Your task to perform on an android device: turn on the 12-hour format for clock Image 0: 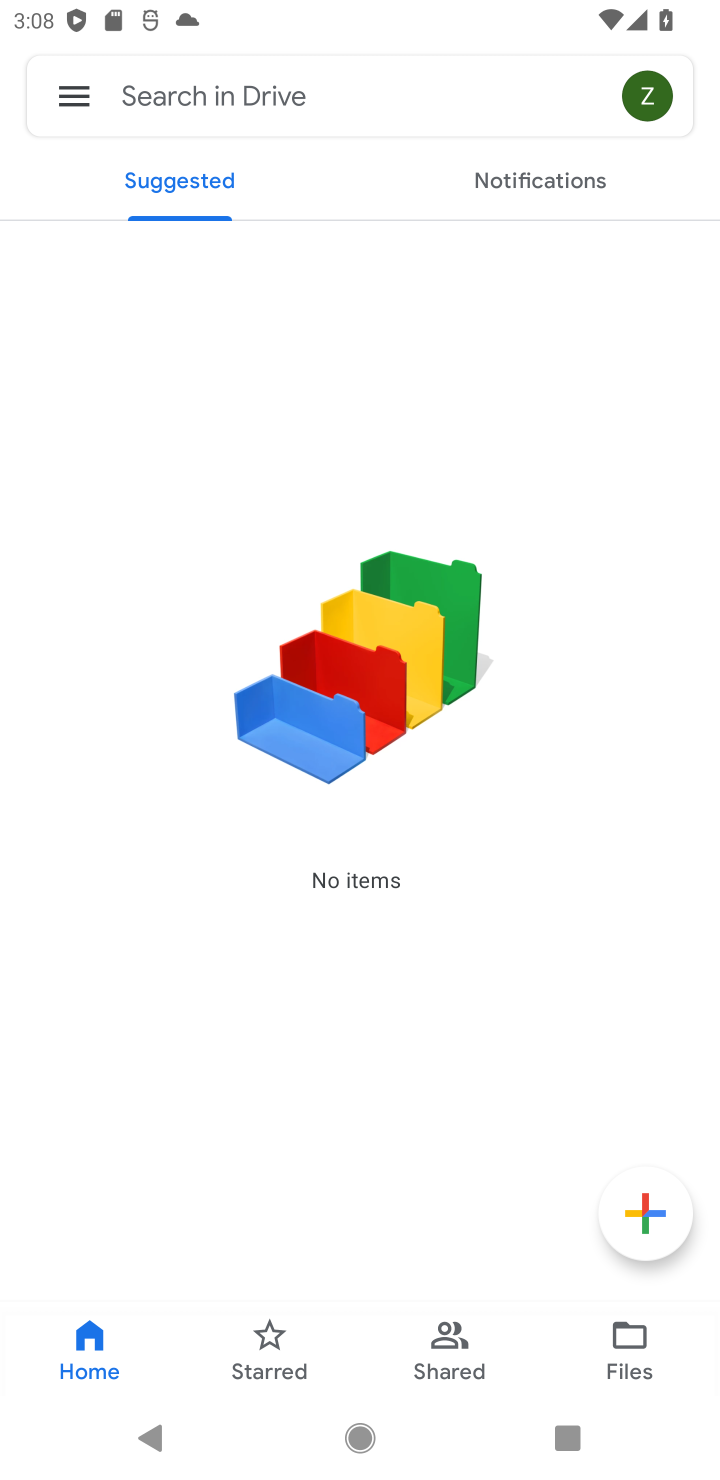
Step 0: press home button
Your task to perform on an android device: turn on the 12-hour format for clock Image 1: 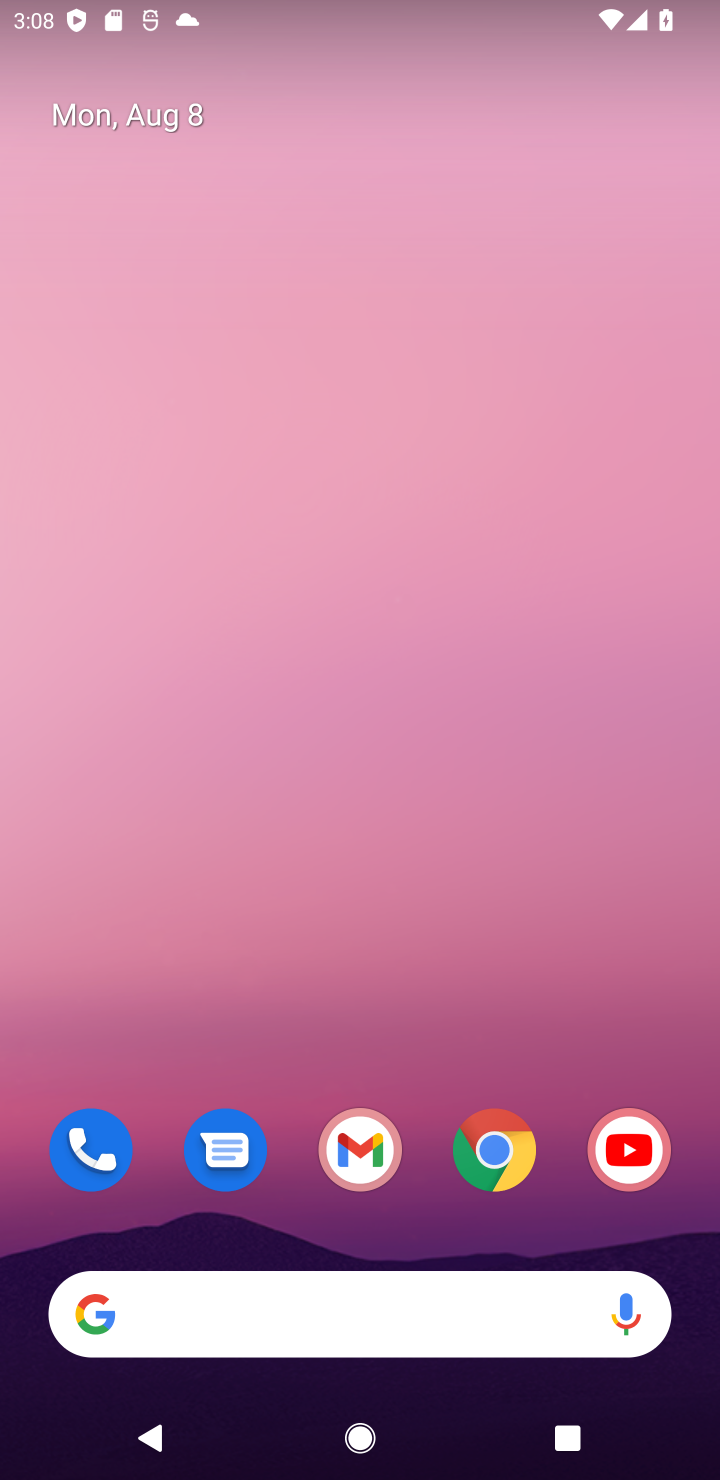
Step 1: drag from (0, 1442) to (707, 502)
Your task to perform on an android device: turn on the 12-hour format for clock Image 2: 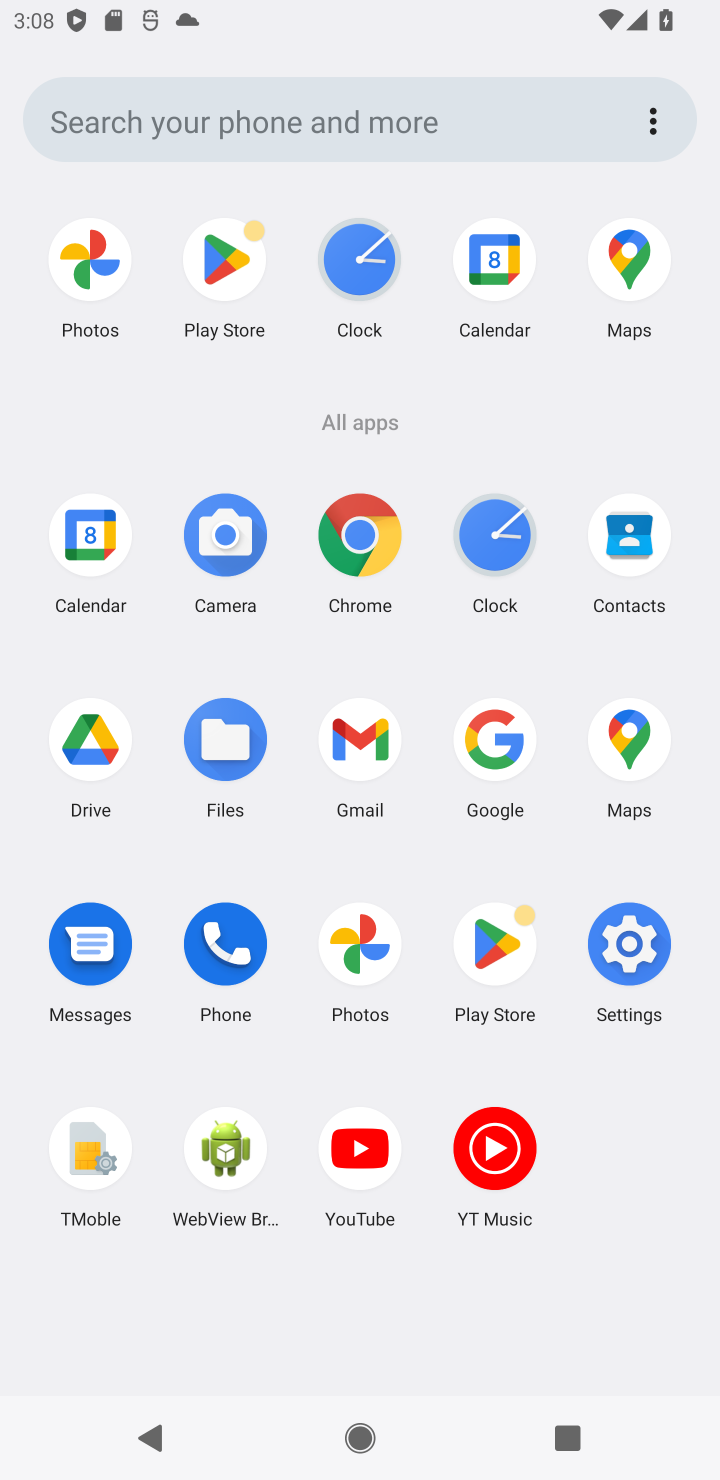
Step 2: click (488, 536)
Your task to perform on an android device: turn on the 12-hour format for clock Image 3: 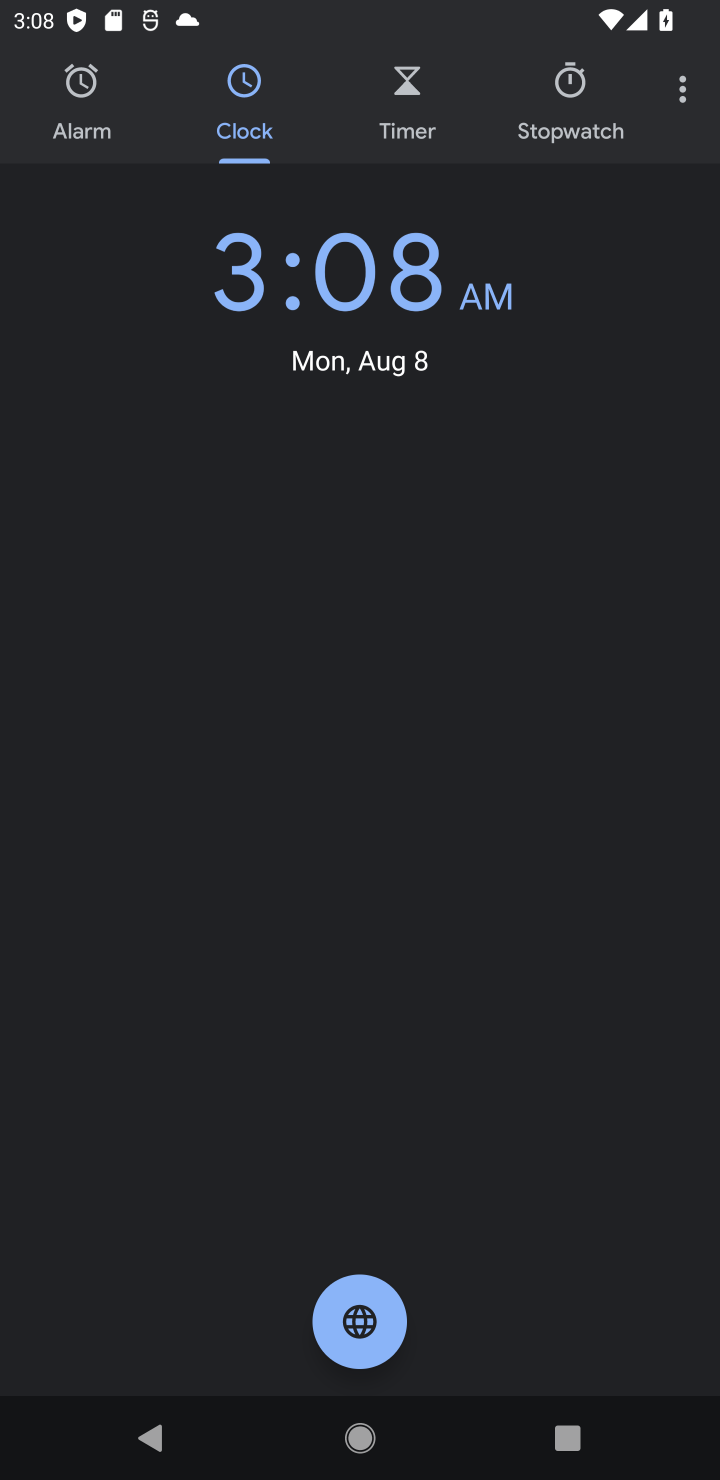
Step 3: click (685, 104)
Your task to perform on an android device: turn on the 12-hour format for clock Image 4: 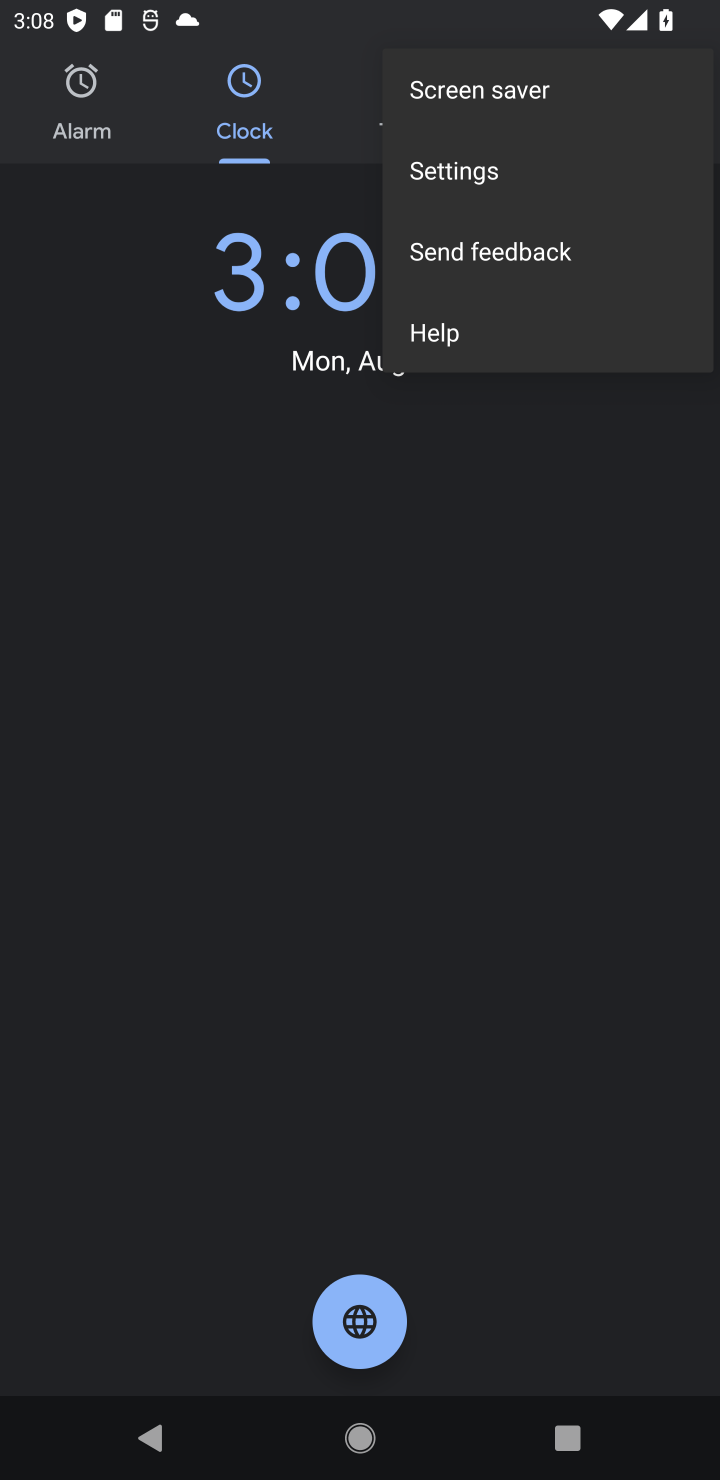
Step 4: click (456, 174)
Your task to perform on an android device: turn on the 12-hour format for clock Image 5: 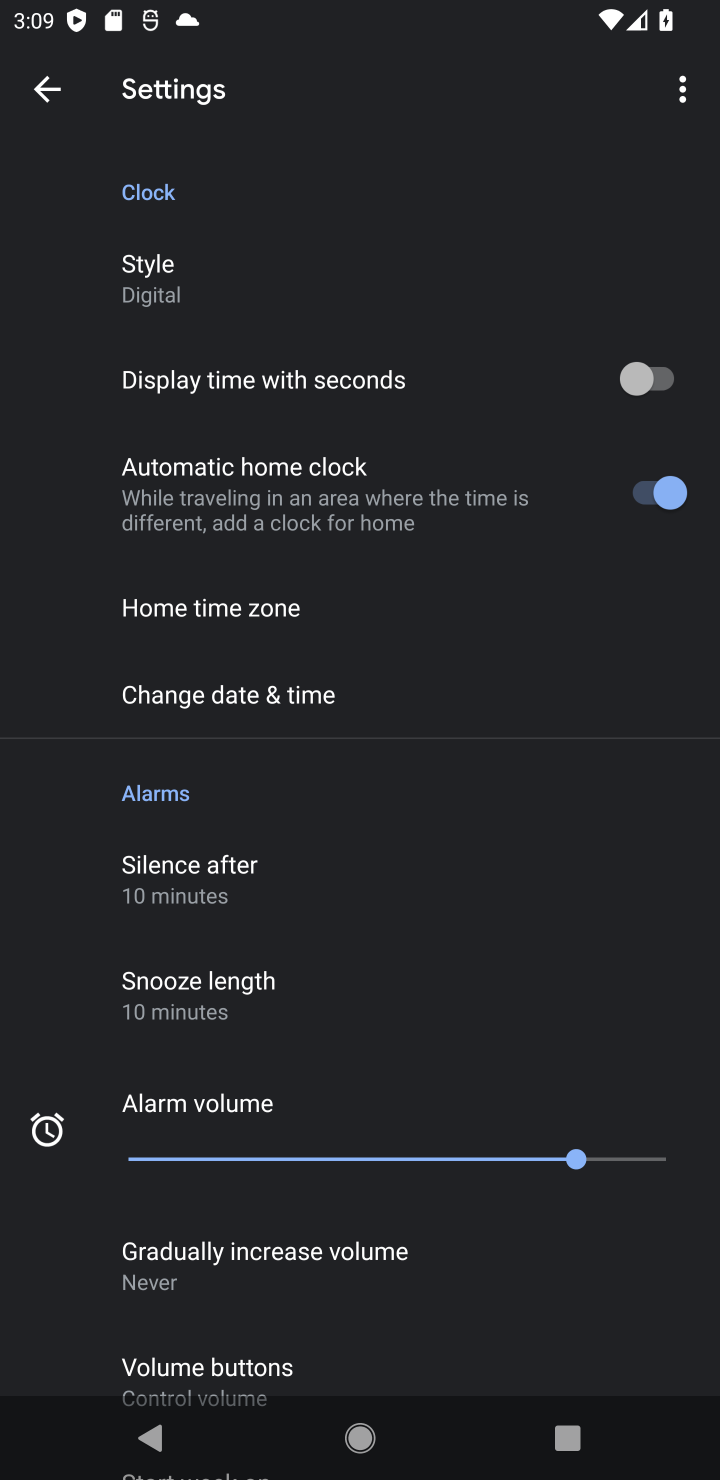
Step 5: click (263, 694)
Your task to perform on an android device: turn on the 12-hour format for clock Image 6: 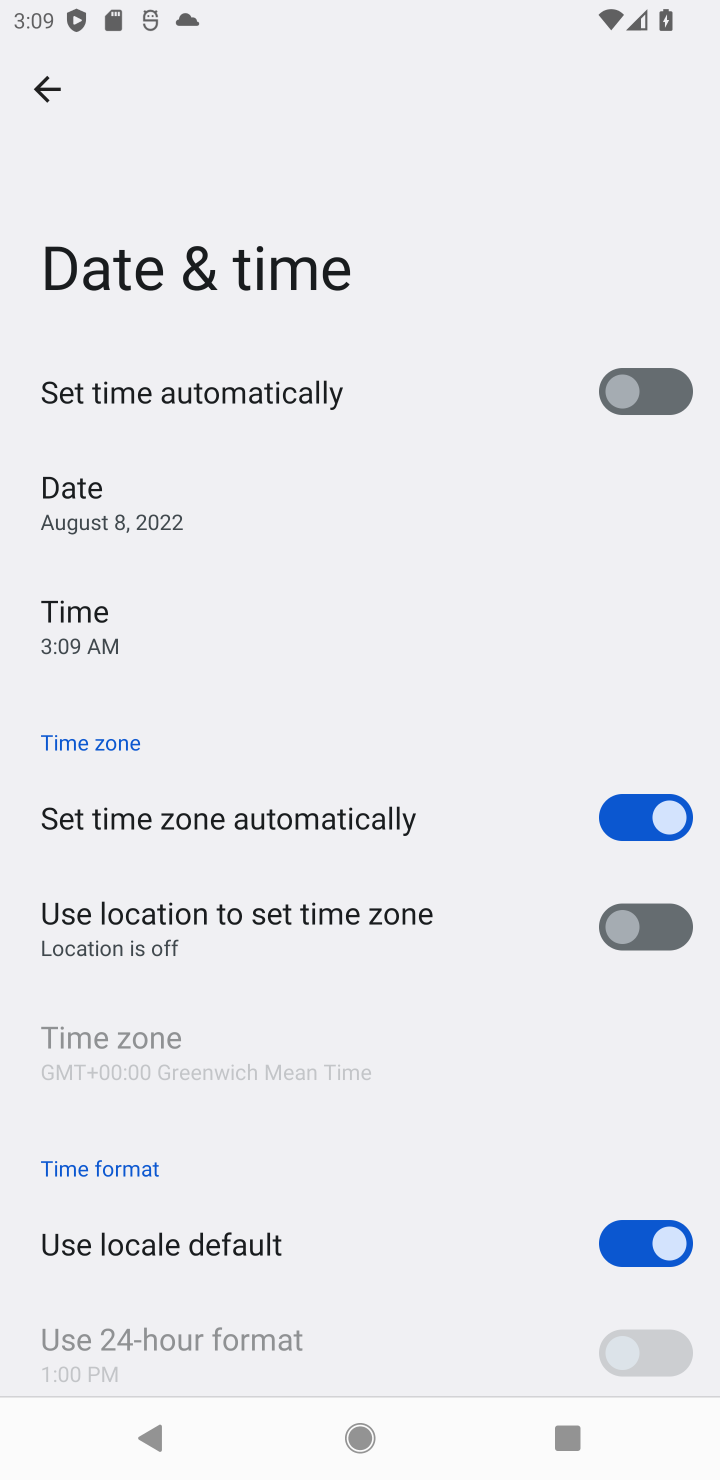
Step 6: click (643, 1350)
Your task to perform on an android device: turn on the 12-hour format for clock Image 7: 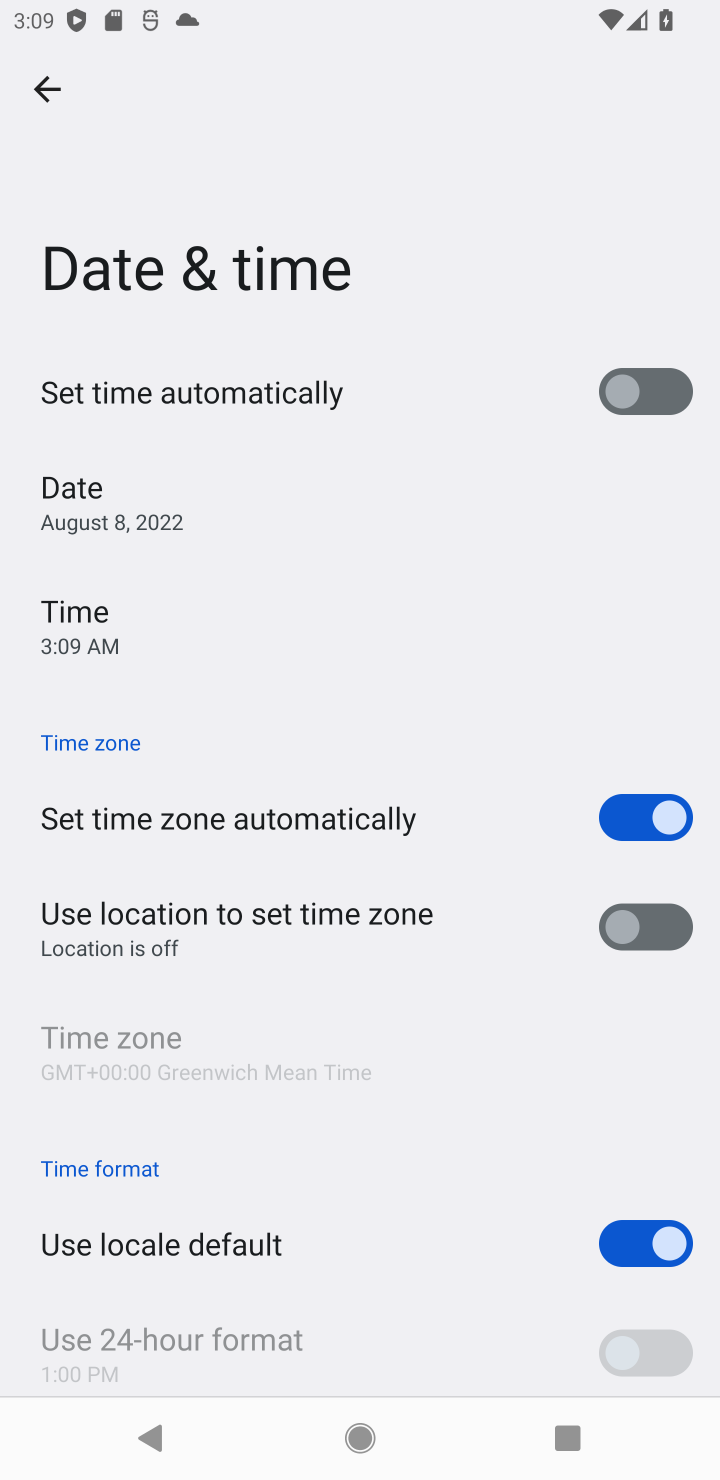
Step 7: click (637, 1231)
Your task to perform on an android device: turn on the 12-hour format for clock Image 8: 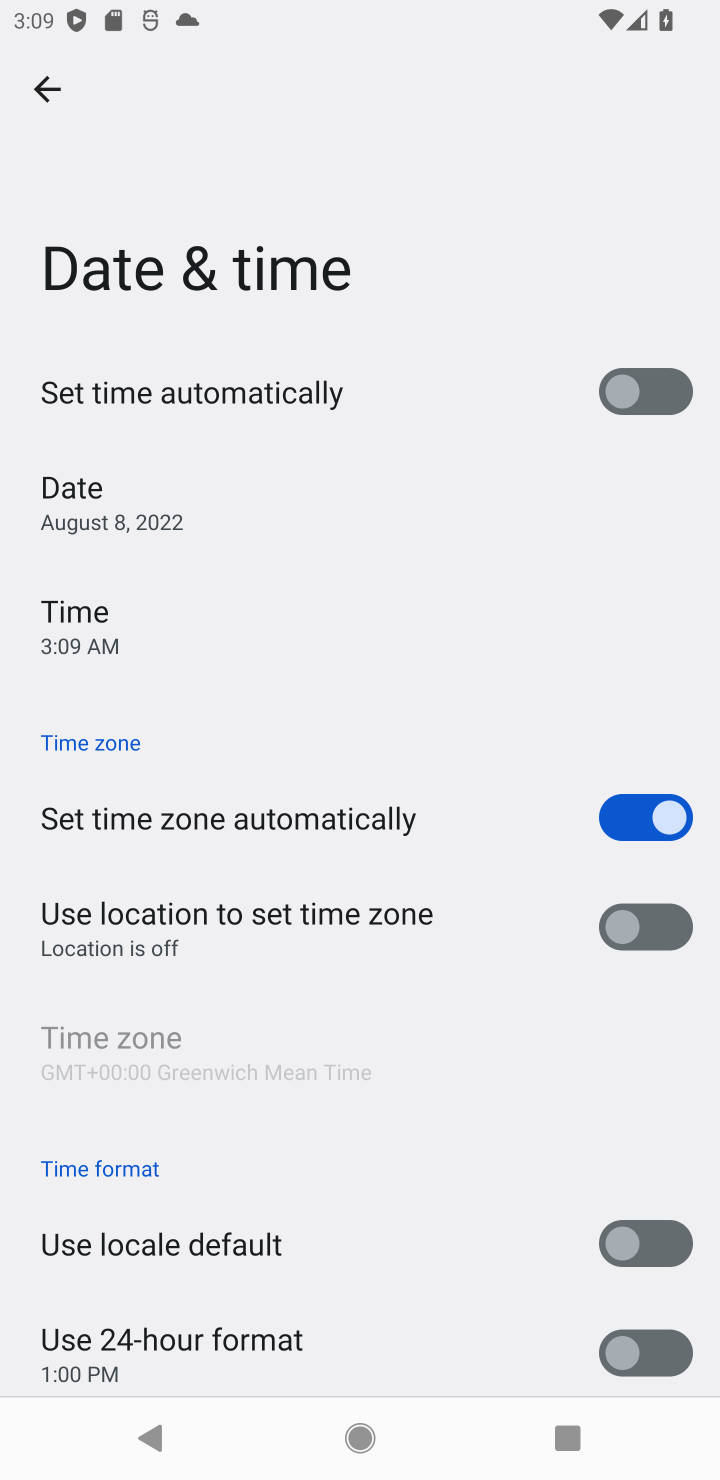
Step 8: click (653, 1360)
Your task to perform on an android device: turn on the 12-hour format for clock Image 9: 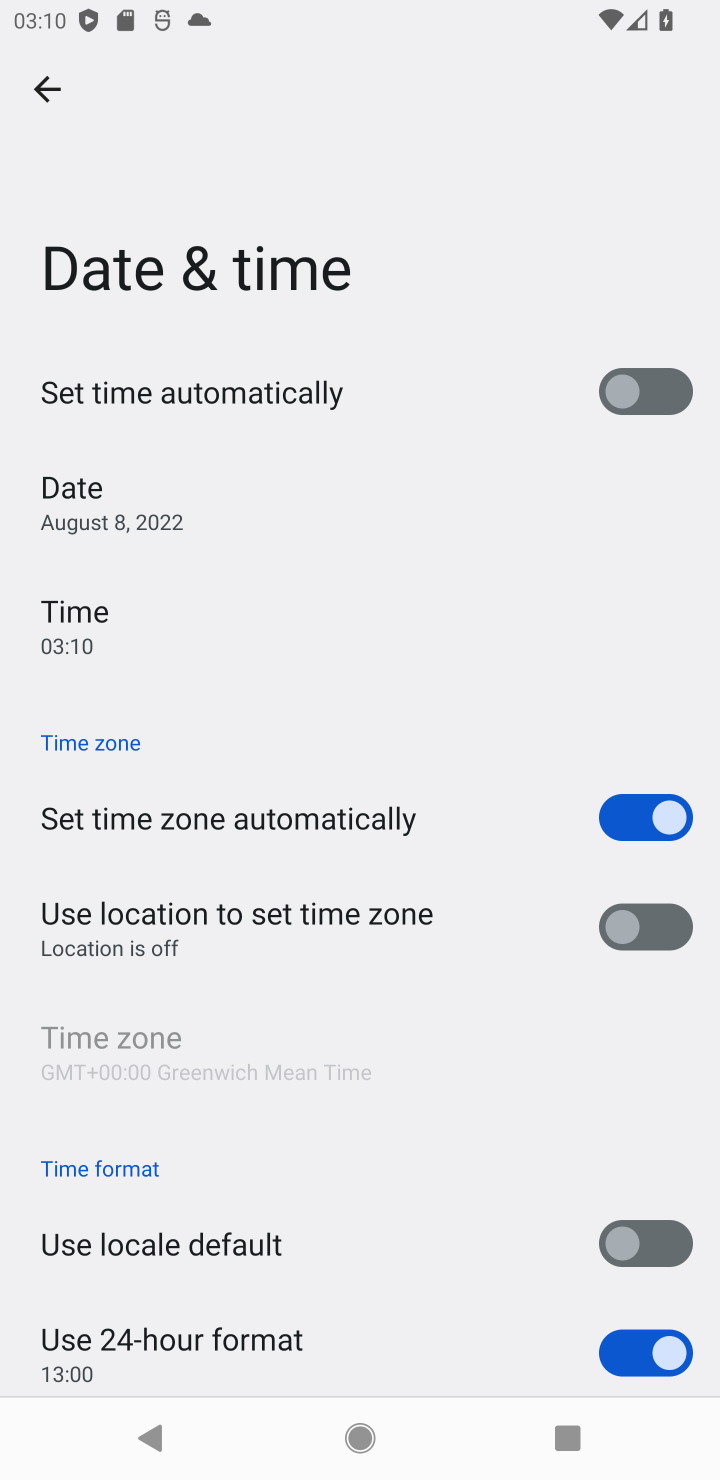
Step 9: task complete